Your task to perform on an android device: Open display settings Image 0: 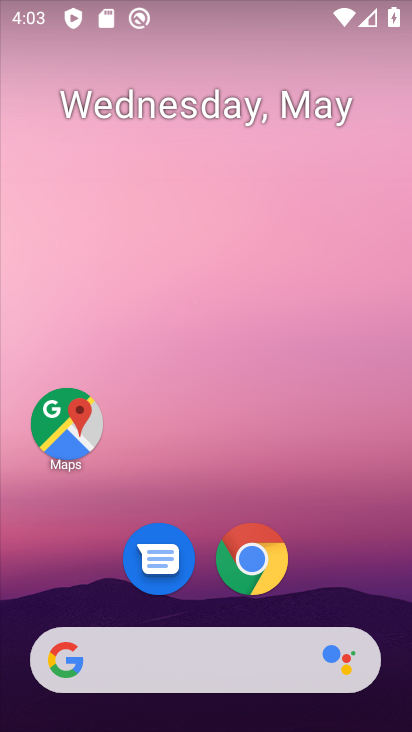
Step 0: drag from (347, 591) to (216, 39)
Your task to perform on an android device: Open display settings Image 1: 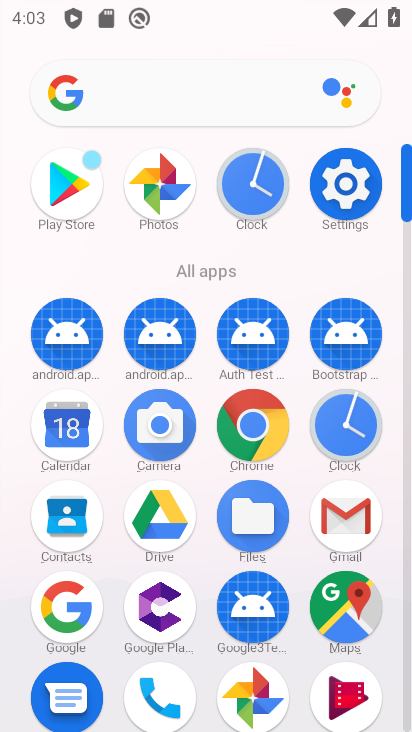
Step 1: click (332, 189)
Your task to perform on an android device: Open display settings Image 2: 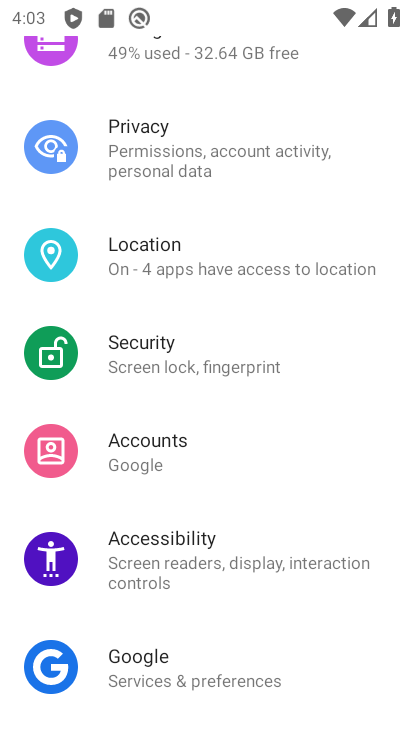
Step 2: drag from (251, 153) to (240, 575)
Your task to perform on an android device: Open display settings Image 3: 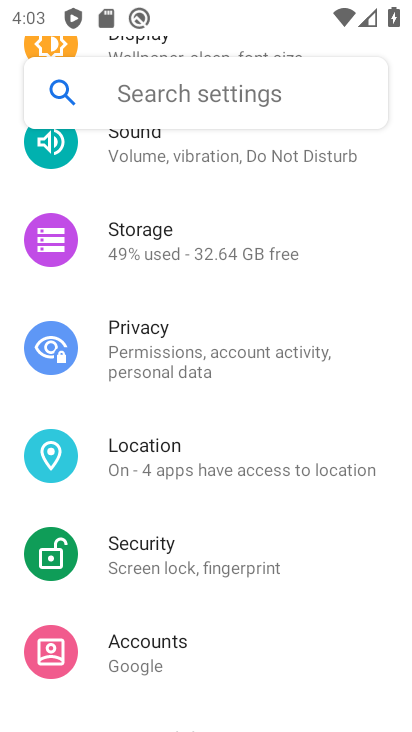
Step 3: drag from (216, 213) to (216, 473)
Your task to perform on an android device: Open display settings Image 4: 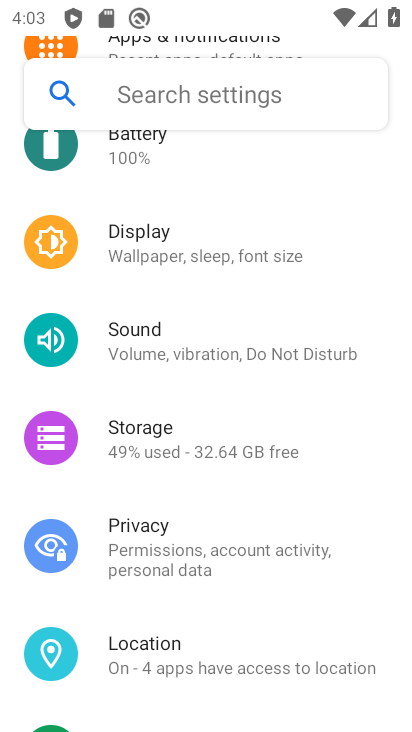
Step 4: click (200, 247)
Your task to perform on an android device: Open display settings Image 5: 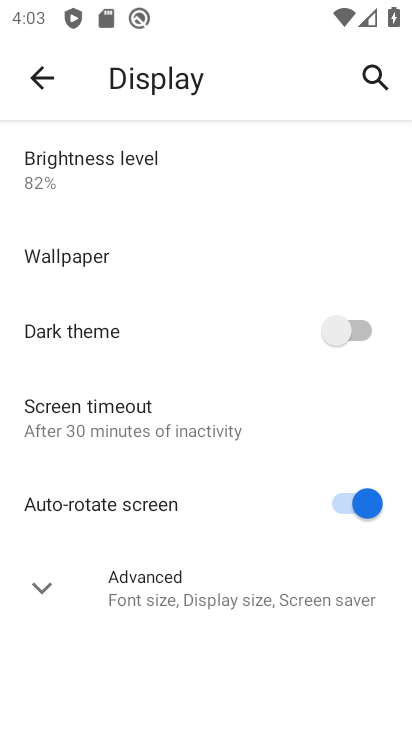
Step 5: task complete